Your task to perform on an android device: Do I have any events today? Image 0: 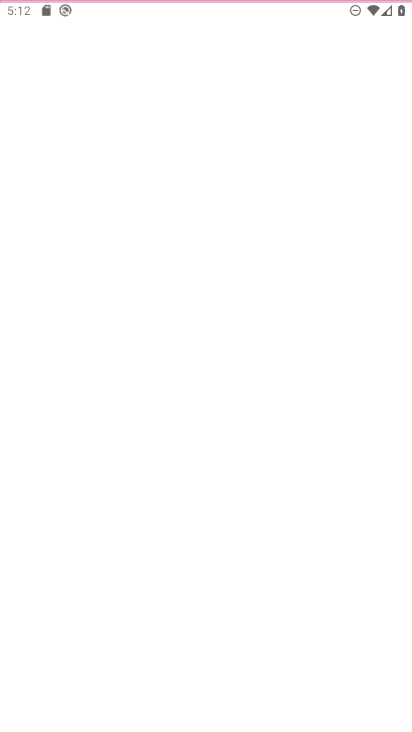
Step 0: press home button
Your task to perform on an android device: Do I have any events today? Image 1: 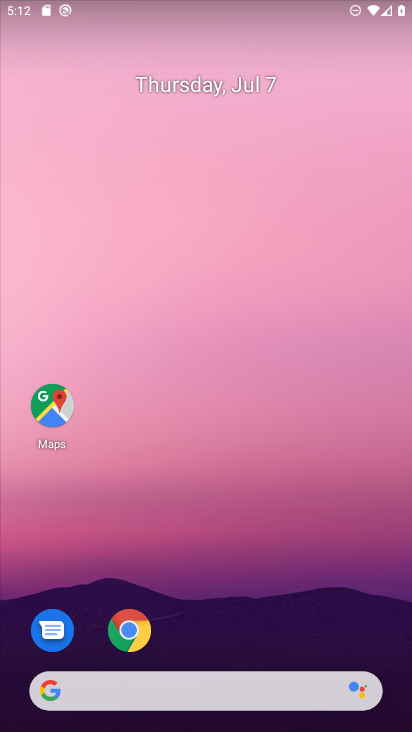
Step 1: drag from (237, 635) to (218, 123)
Your task to perform on an android device: Do I have any events today? Image 2: 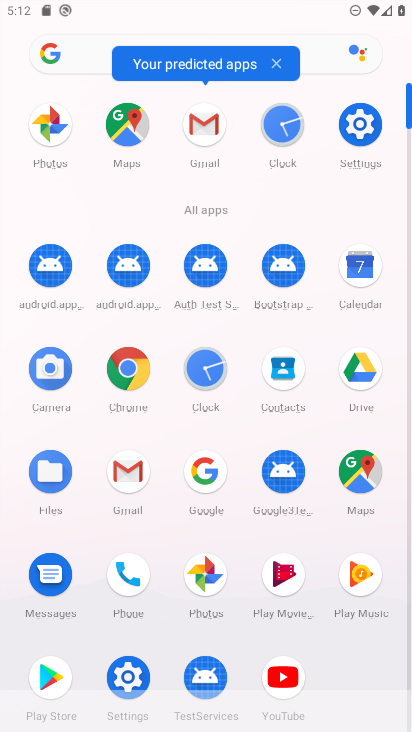
Step 2: click (365, 281)
Your task to perform on an android device: Do I have any events today? Image 3: 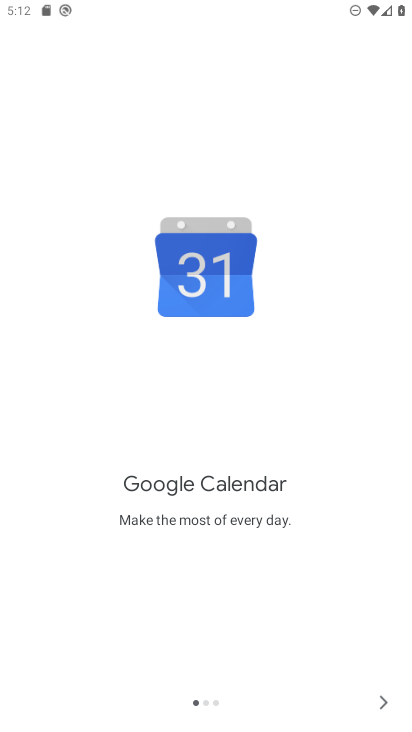
Step 3: click (379, 700)
Your task to perform on an android device: Do I have any events today? Image 4: 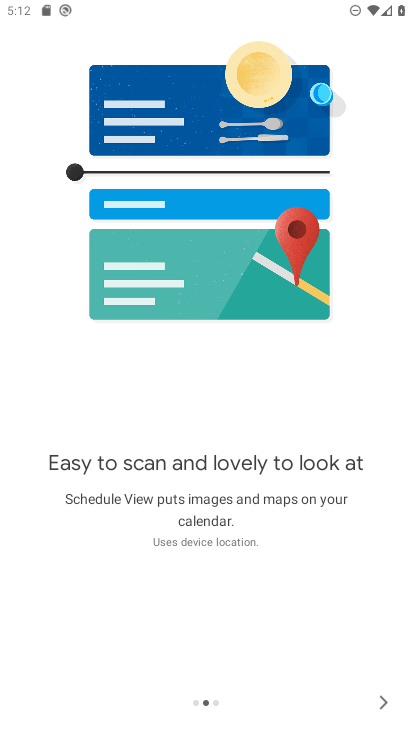
Step 4: click (384, 699)
Your task to perform on an android device: Do I have any events today? Image 5: 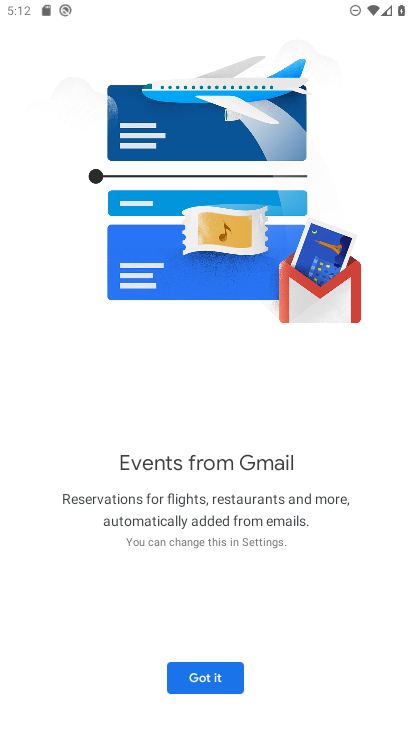
Step 5: click (231, 681)
Your task to perform on an android device: Do I have any events today? Image 6: 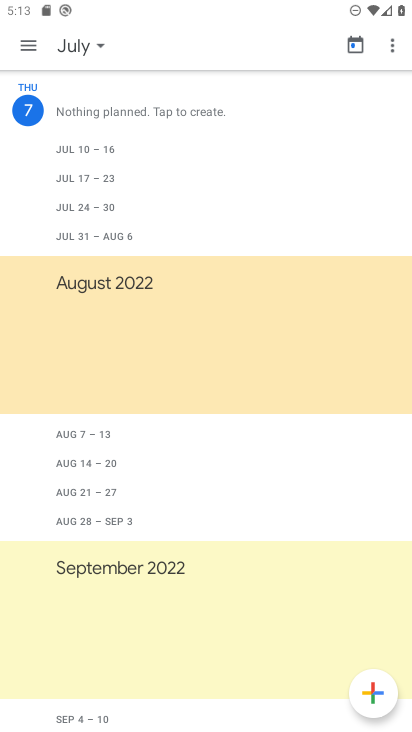
Step 6: click (94, 44)
Your task to perform on an android device: Do I have any events today? Image 7: 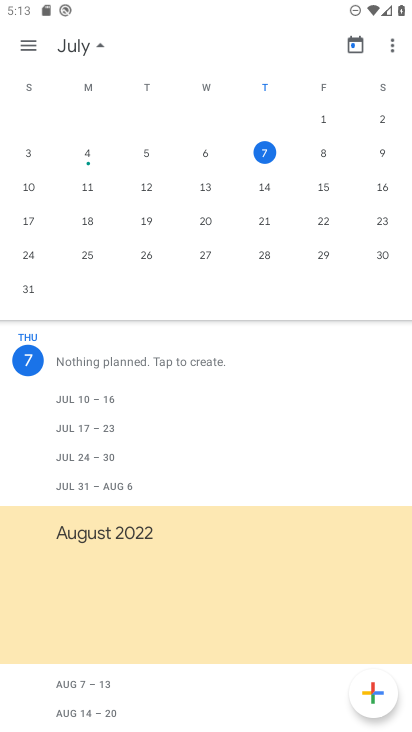
Step 7: click (260, 154)
Your task to perform on an android device: Do I have any events today? Image 8: 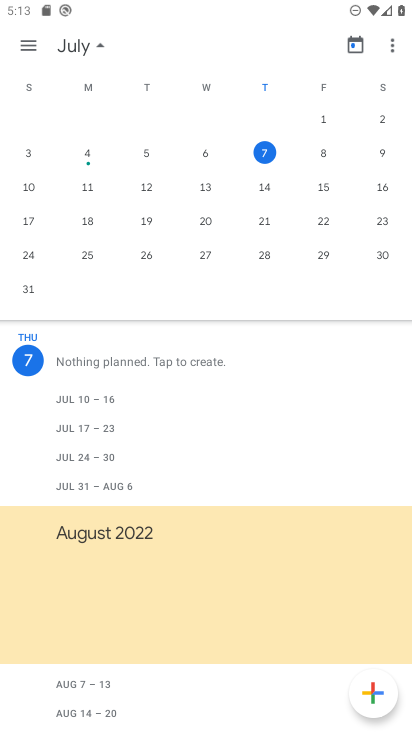
Step 8: task complete